Your task to perform on an android device: Go to eBay Image 0: 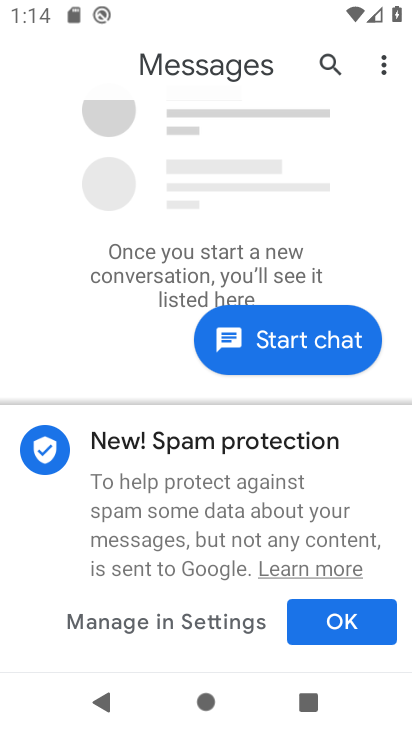
Step 0: press home button
Your task to perform on an android device: Go to eBay Image 1: 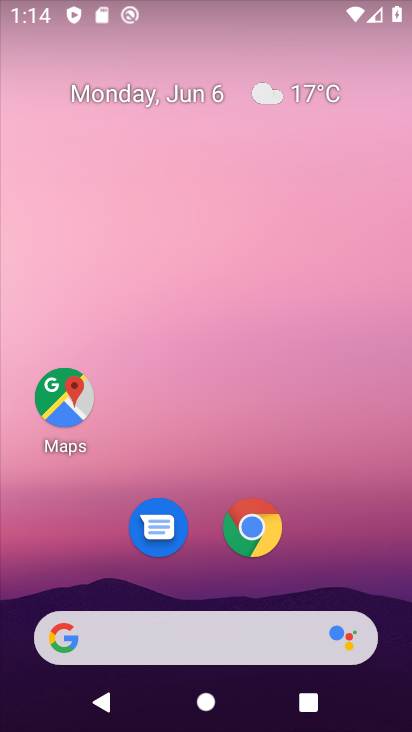
Step 1: click (258, 527)
Your task to perform on an android device: Go to eBay Image 2: 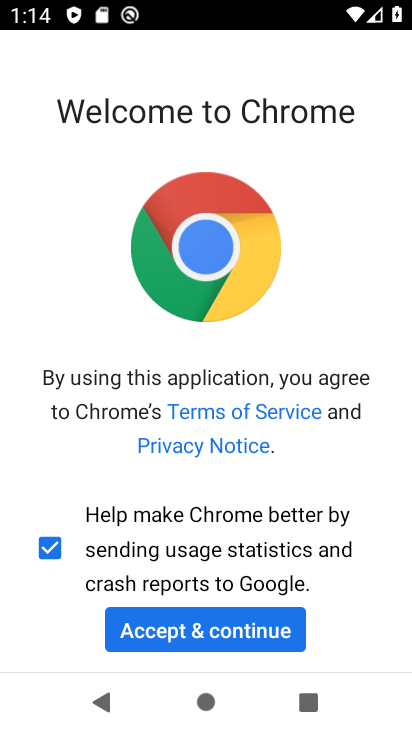
Step 2: click (205, 619)
Your task to perform on an android device: Go to eBay Image 3: 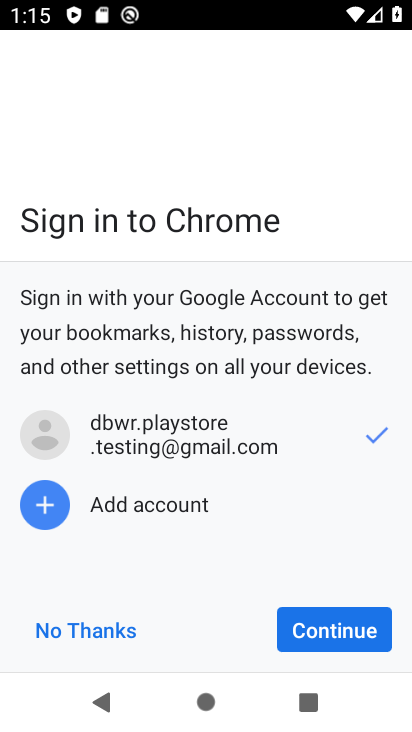
Step 3: click (324, 616)
Your task to perform on an android device: Go to eBay Image 4: 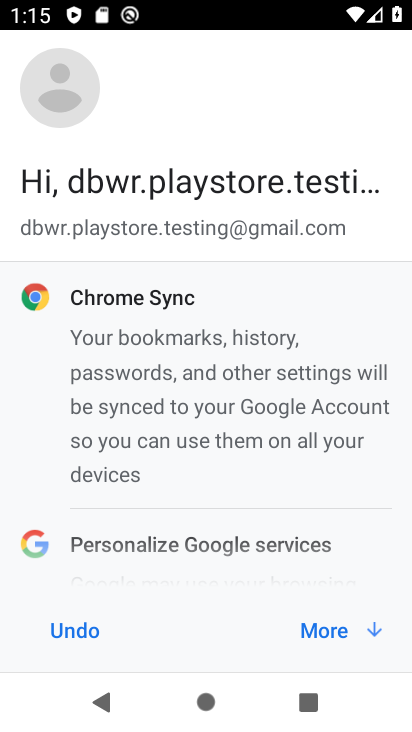
Step 4: click (329, 625)
Your task to perform on an android device: Go to eBay Image 5: 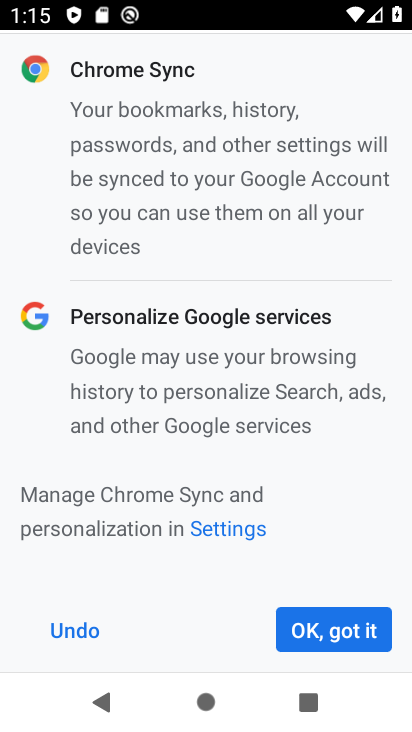
Step 5: click (329, 625)
Your task to perform on an android device: Go to eBay Image 6: 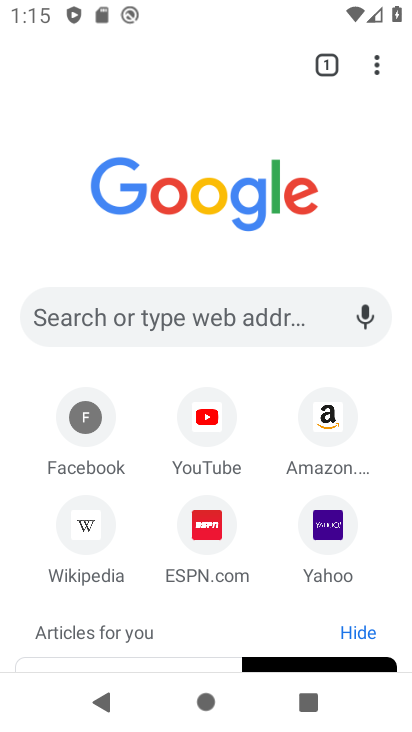
Step 6: click (192, 317)
Your task to perform on an android device: Go to eBay Image 7: 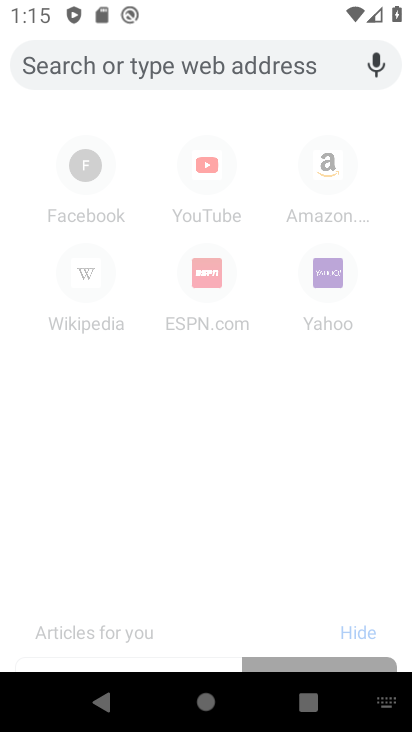
Step 7: type "eBay"
Your task to perform on an android device: Go to eBay Image 8: 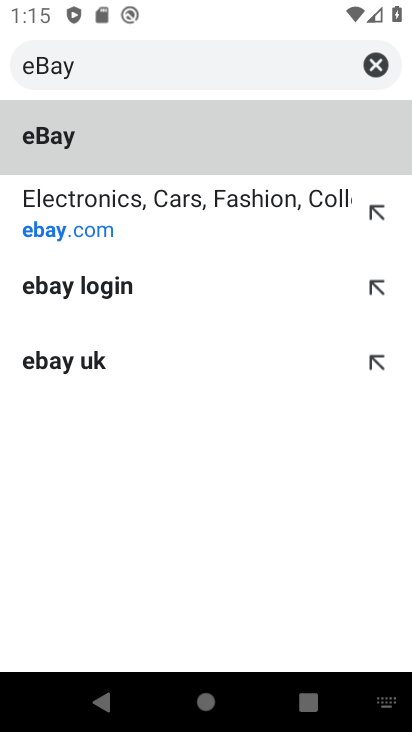
Step 8: click (55, 146)
Your task to perform on an android device: Go to eBay Image 9: 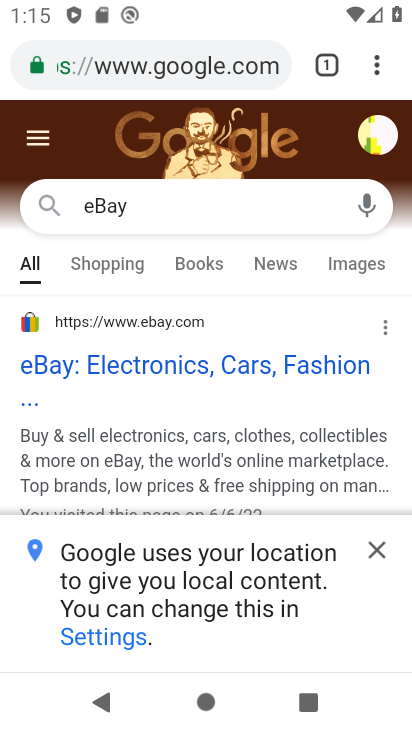
Step 9: click (158, 365)
Your task to perform on an android device: Go to eBay Image 10: 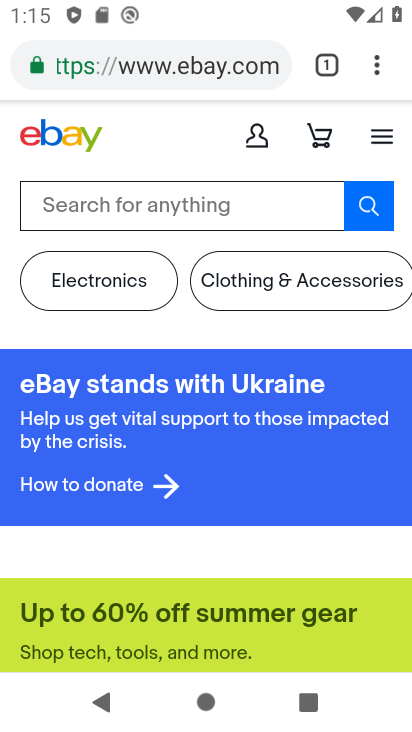
Step 10: task complete